Your task to perform on an android device: find photos in the google photos app Image 0: 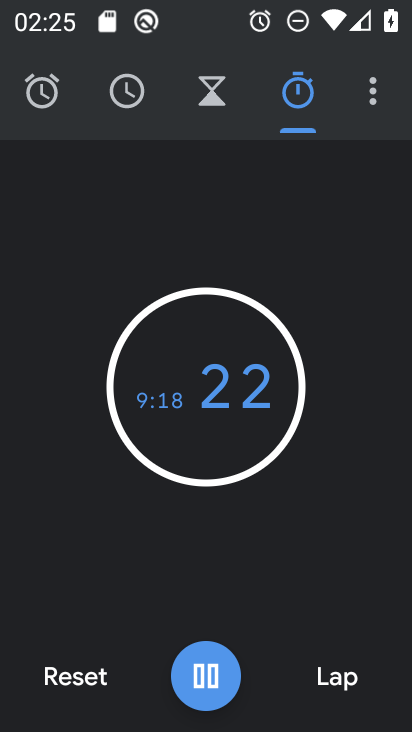
Step 0: press home button
Your task to perform on an android device: find photos in the google photos app Image 1: 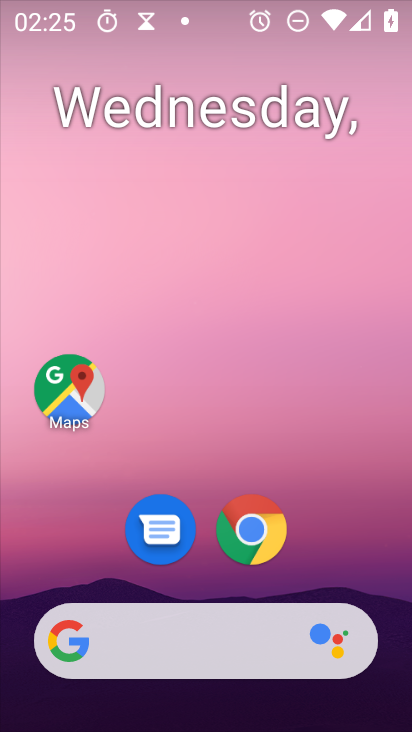
Step 1: drag from (284, 639) to (312, 20)
Your task to perform on an android device: find photos in the google photos app Image 2: 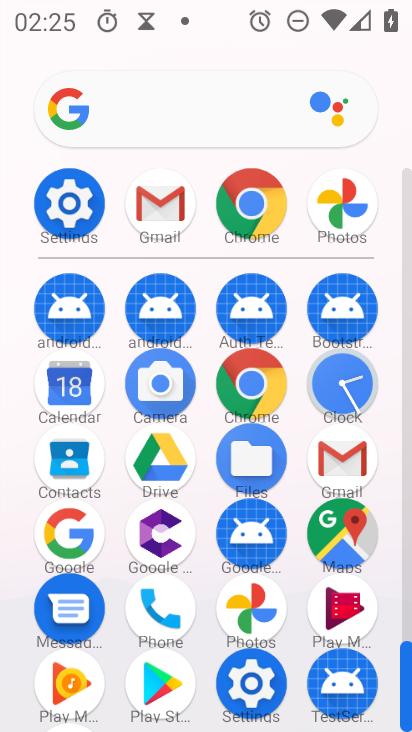
Step 2: click (270, 622)
Your task to perform on an android device: find photos in the google photos app Image 3: 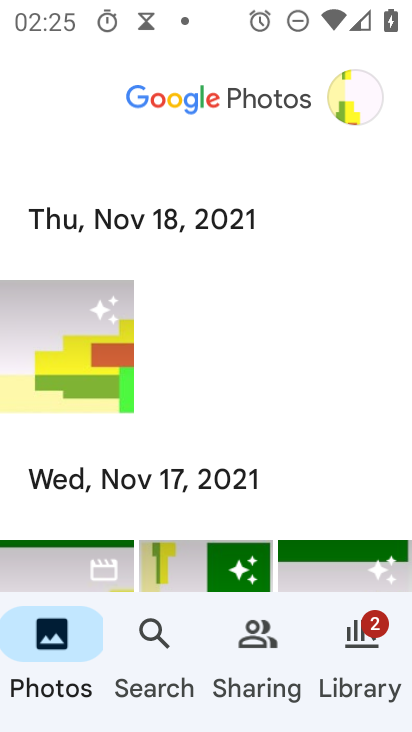
Step 3: task complete